Your task to perform on an android device: see tabs open on other devices in the chrome app Image 0: 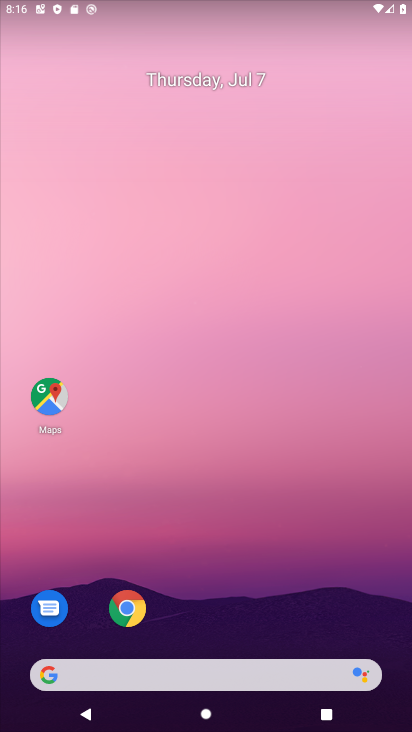
Step 0: click (128, 610)
Your task to perform on an android device: see tabs open on other devices in the chrome app Image 1: 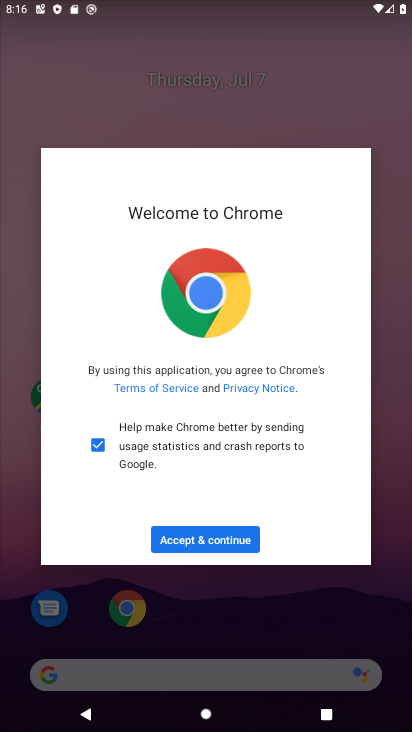
Step 1: click (198, 538)
Your task to perform on an android device: see tabs open on other devices in the chrome app Image 2: 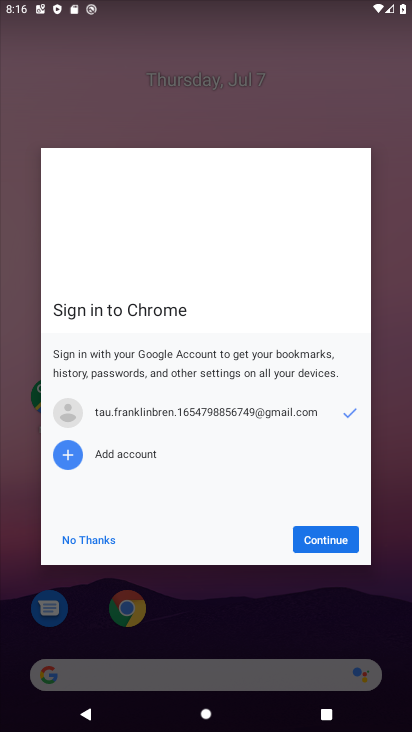
Step 2: click (324, 541)
Your task to perform on an android device: see tabs open on other devices in the chrome app Image 3: 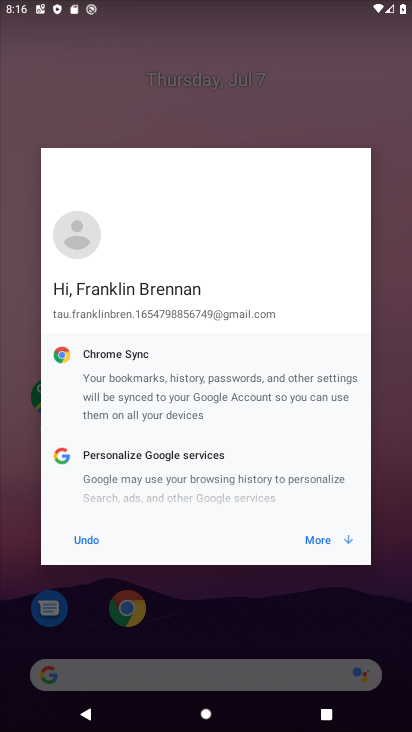
Step 3: click (324, 541)
Your task to perform on an android device: see tabs open on other devices in the chrome app Image 4: 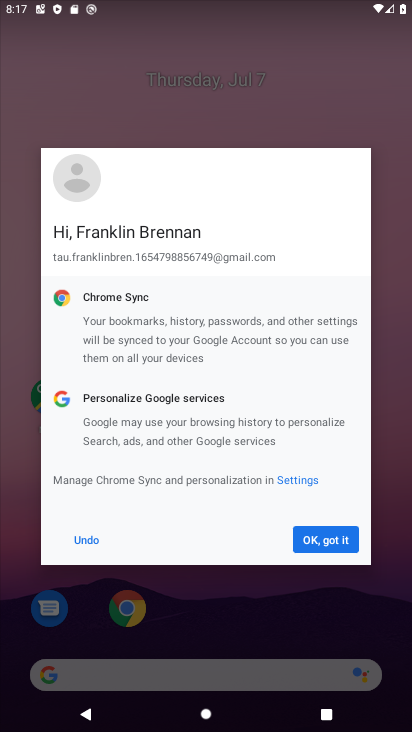
Step 4: click (324, 541)
Your task to perform on an android device: see tabs open on other devices in the chrome app Image 5: 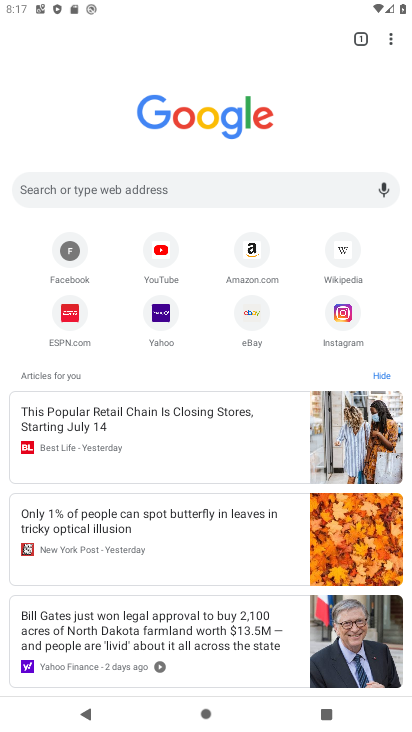
Step 5: click (391, 36)
Your task to perform on an android device: see tabs open on other devices in the chrome app Image 6: 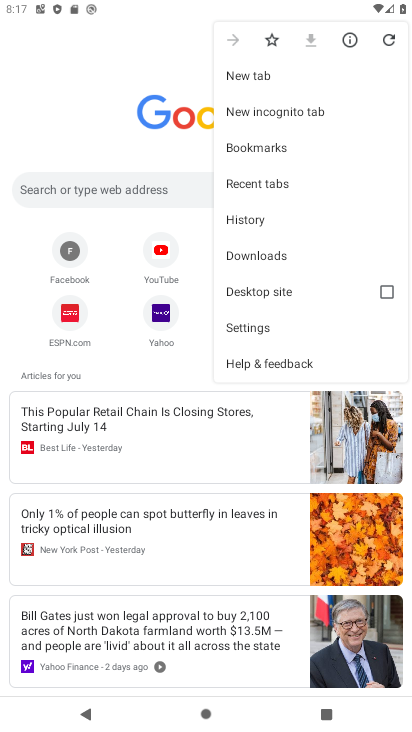
Step 6: click (286, 183)
Your task to perform on an android device: see tabs open on other devices in the chrome app Image 7: 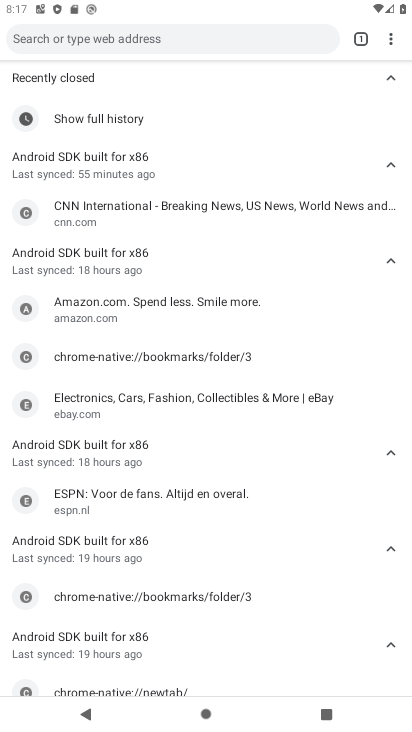
Step 7: task complete